Your task to perform on an android device: Search for the best deal on a 3d printer on aliexpress Image 0: 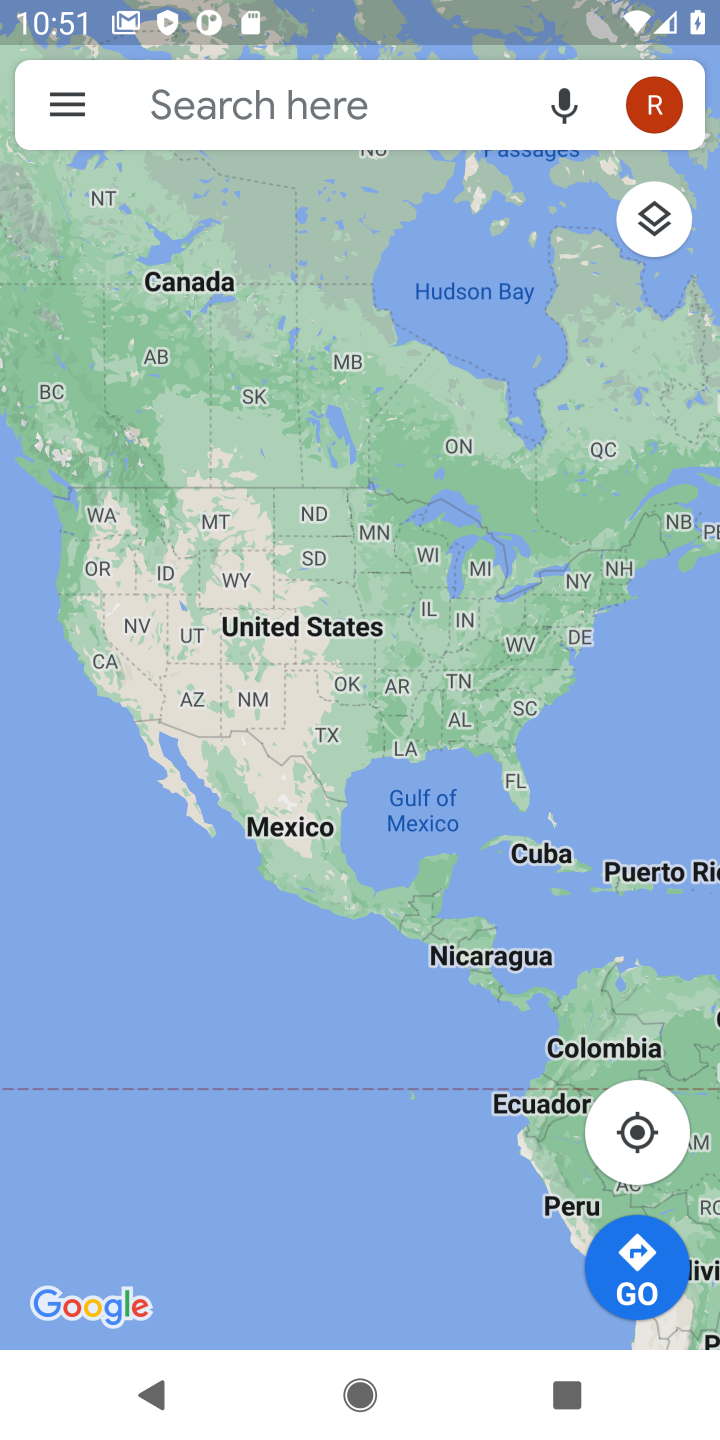
Step 0: press home button
Your task to perform on an android device: Search for the best deal on a 3d printer on aliexpress Image 1: 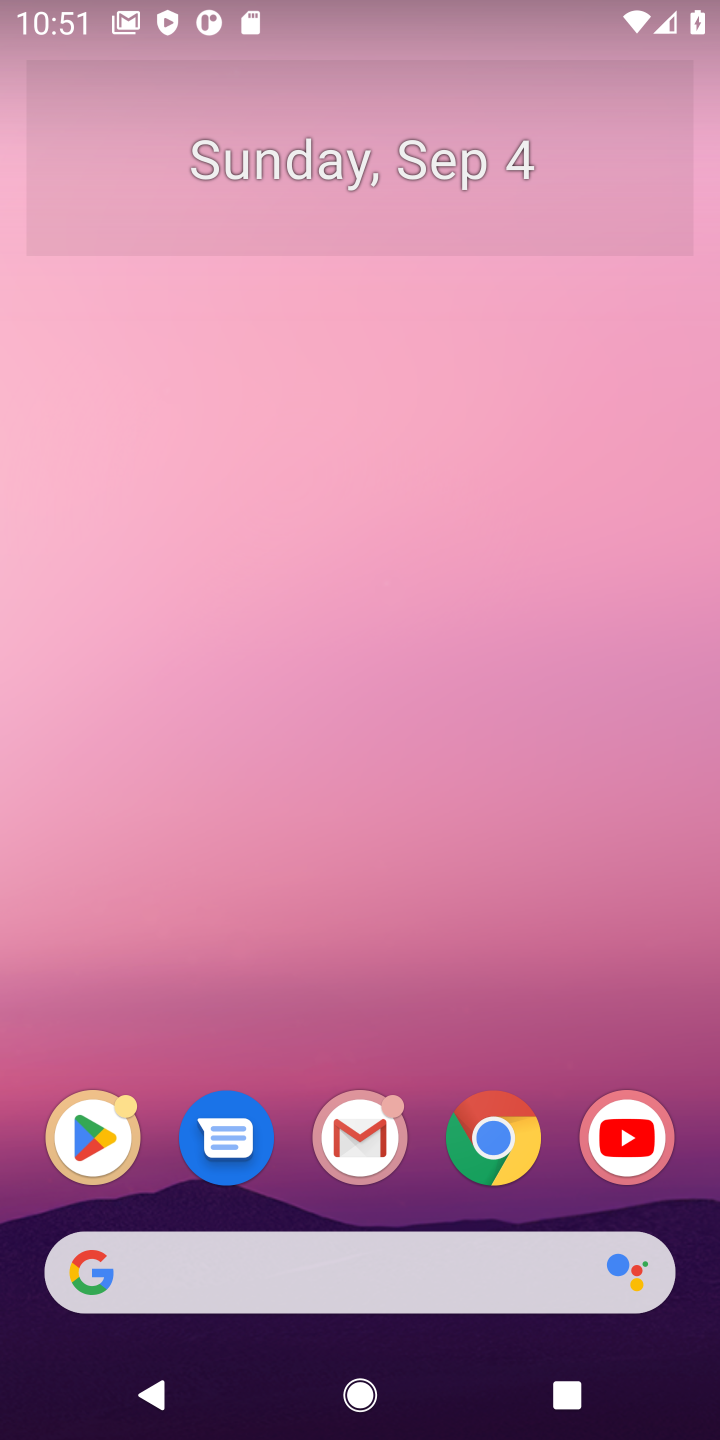
Step 1: click (487, 1159)
Your task to perform on an android device: Search for the best deal on a 3d printer on aliexpress Image 2: 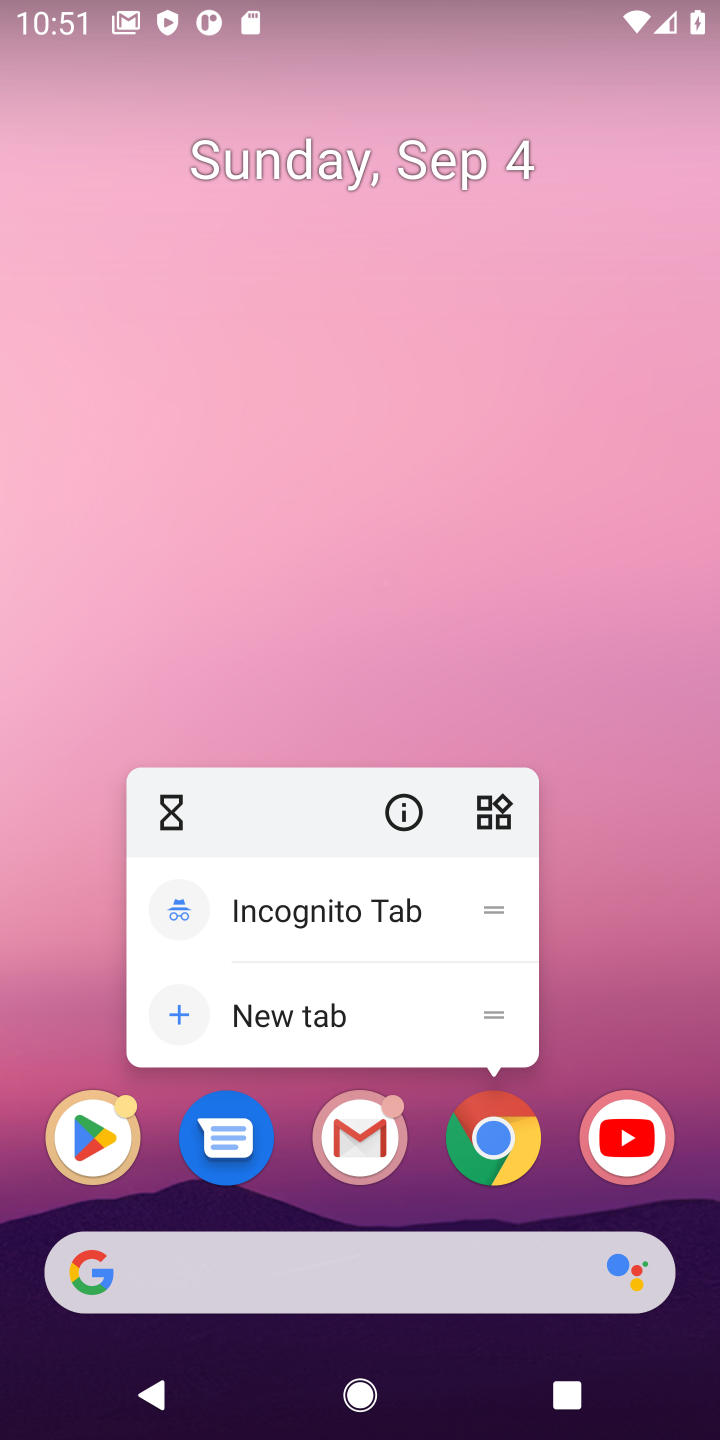
Step 2: click (487, 1159)
Your task to perform on an android device: Search for the best deal on a 3d printer on aliexpress Image 3: 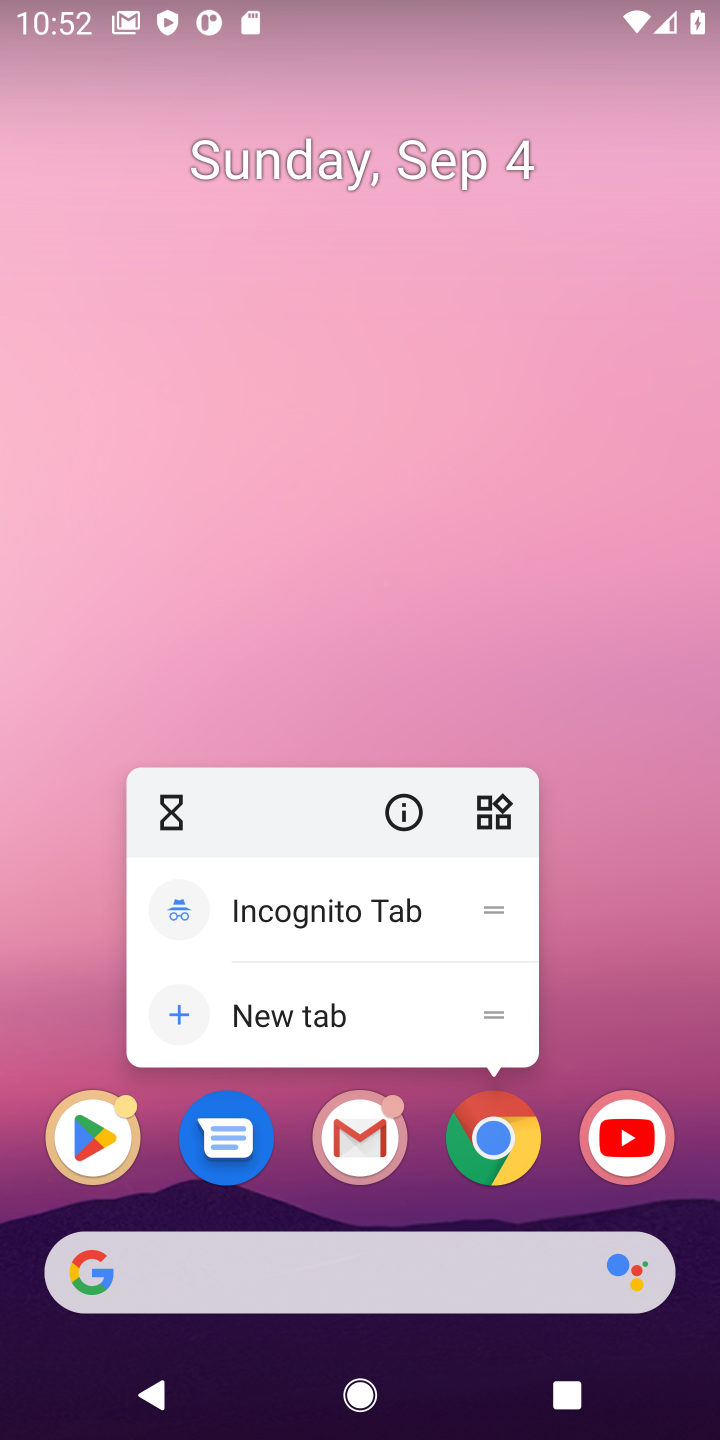
Step 3: click (477, 1188)
Your task to perform on an android device: Search for the best deal on a 3d printer on aliexpress Image 4: 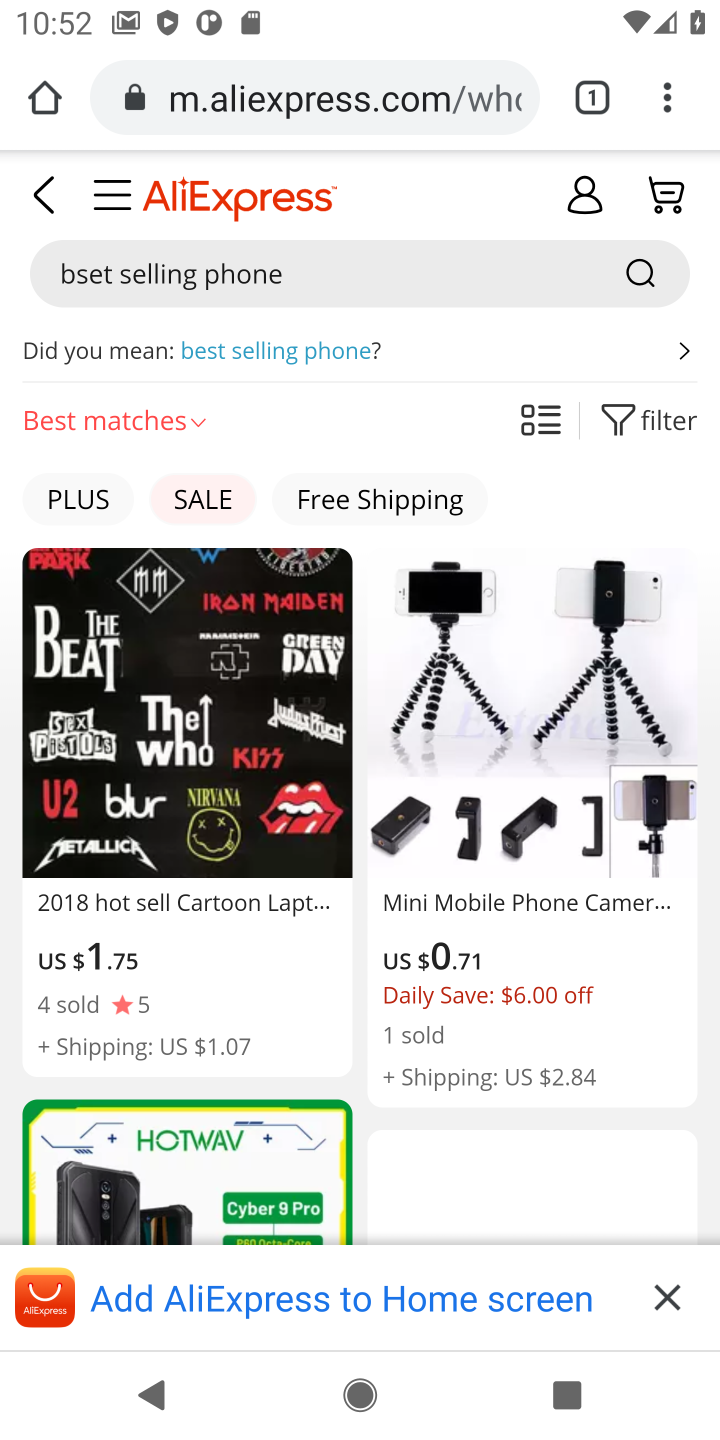
Step 4: click (377, 286)
Your task to perform on an android device: Search for the best deal on a 3d printer on aliexpress Image 5: 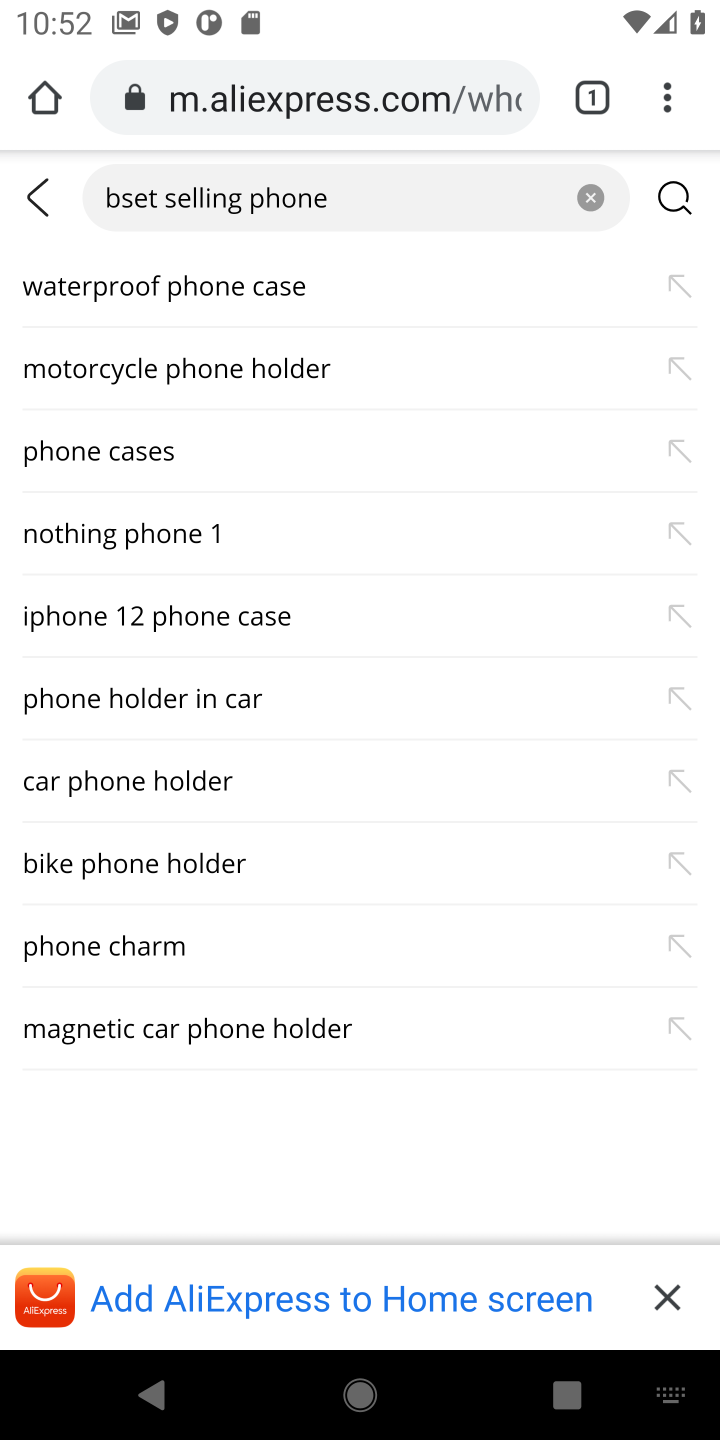
Step 5: click (592, 210)
Your task to perform on an android device: Search for the best deal on a 3d printer on aliexpress Image 6: 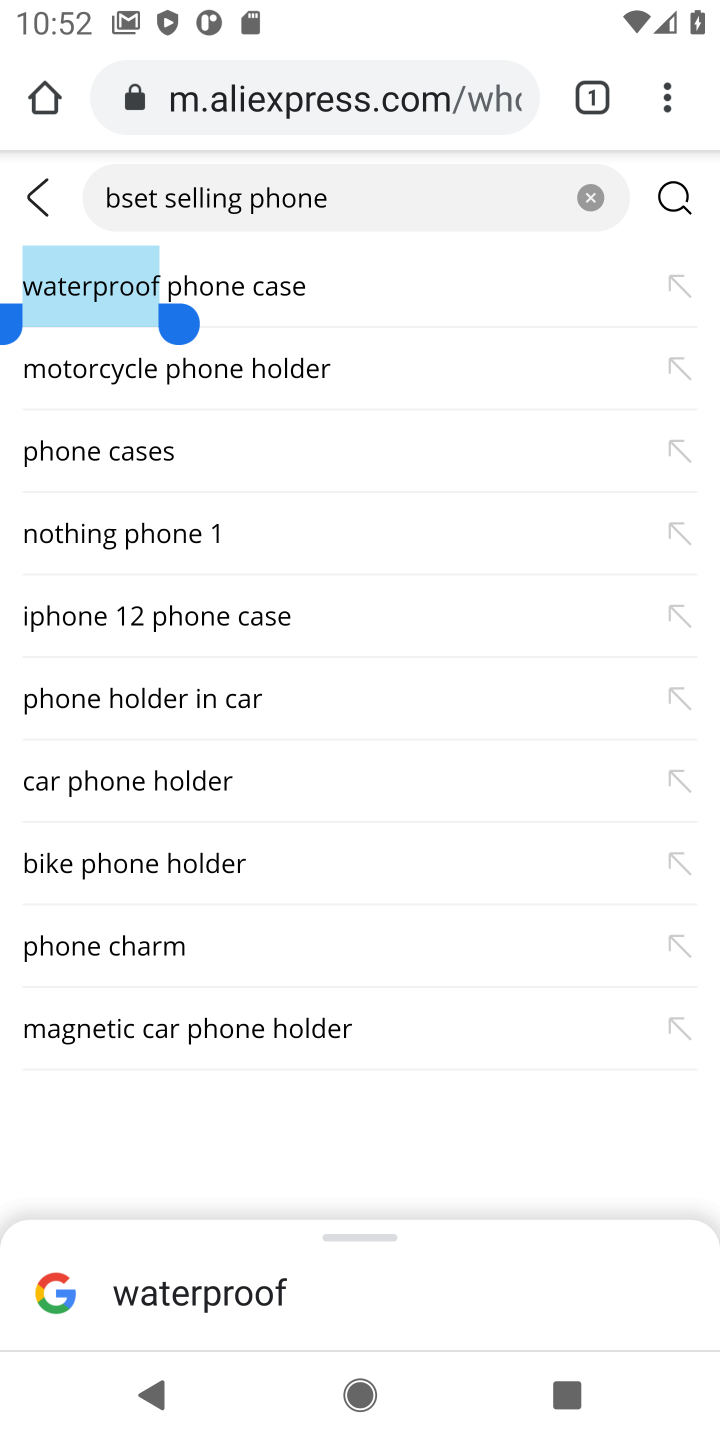
Step 6: click (592, 205)
Your task to perform on an android device: Search for the best deal on a 3d printer on aliexpress Image 7: 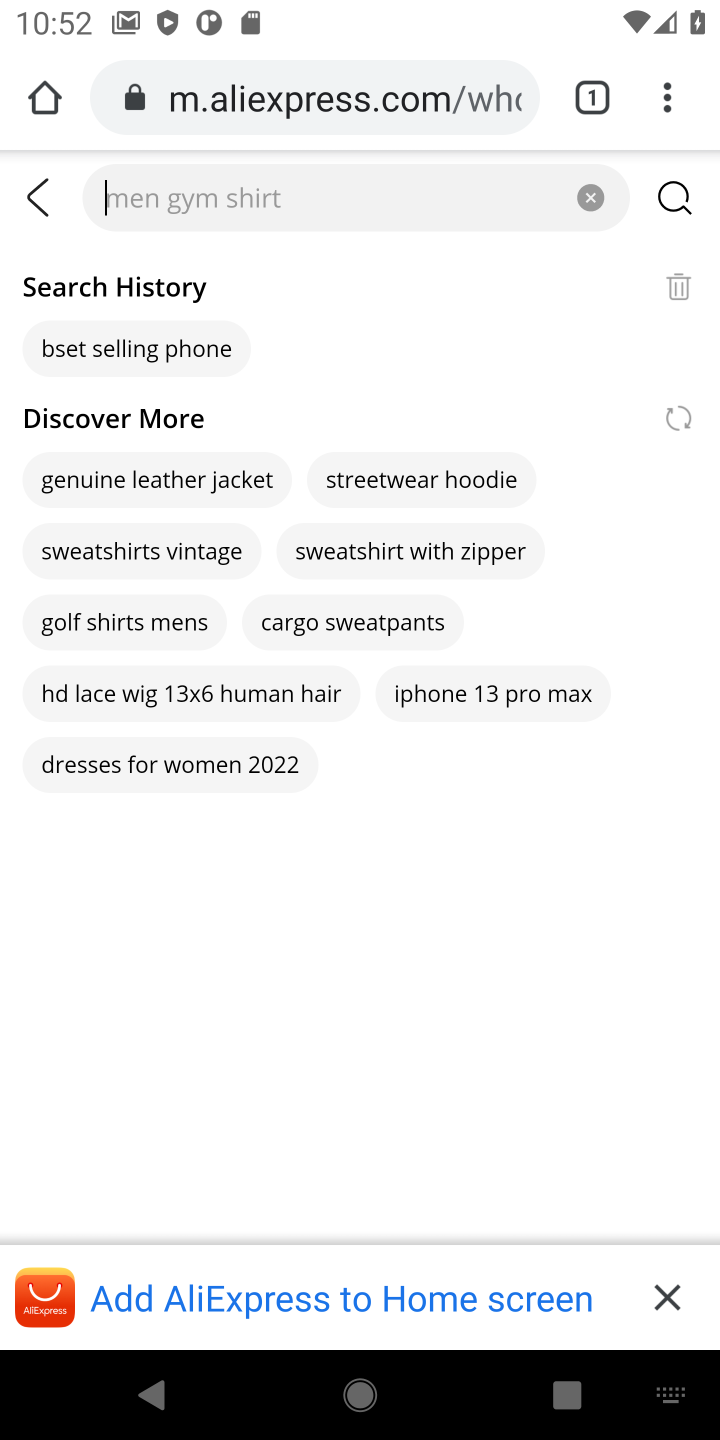
Step 7: type "best deal on a 3d printer"
Your task to perform on an android device: Search for the best deal on a 3d printer on aliexpress Image 8: 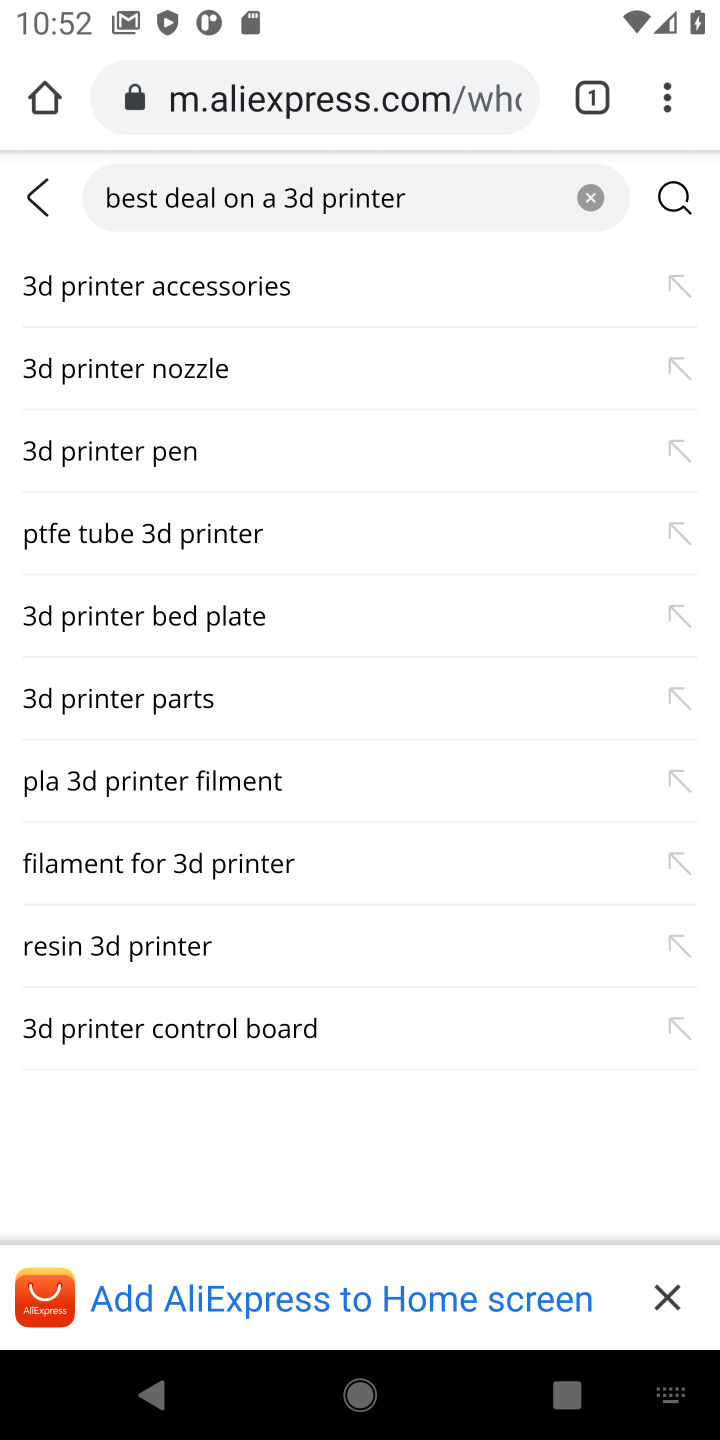
Step 8: press enter
Your task to perform on an android device: Search for the best deal on a 3d printer on aliexpress Image 9: 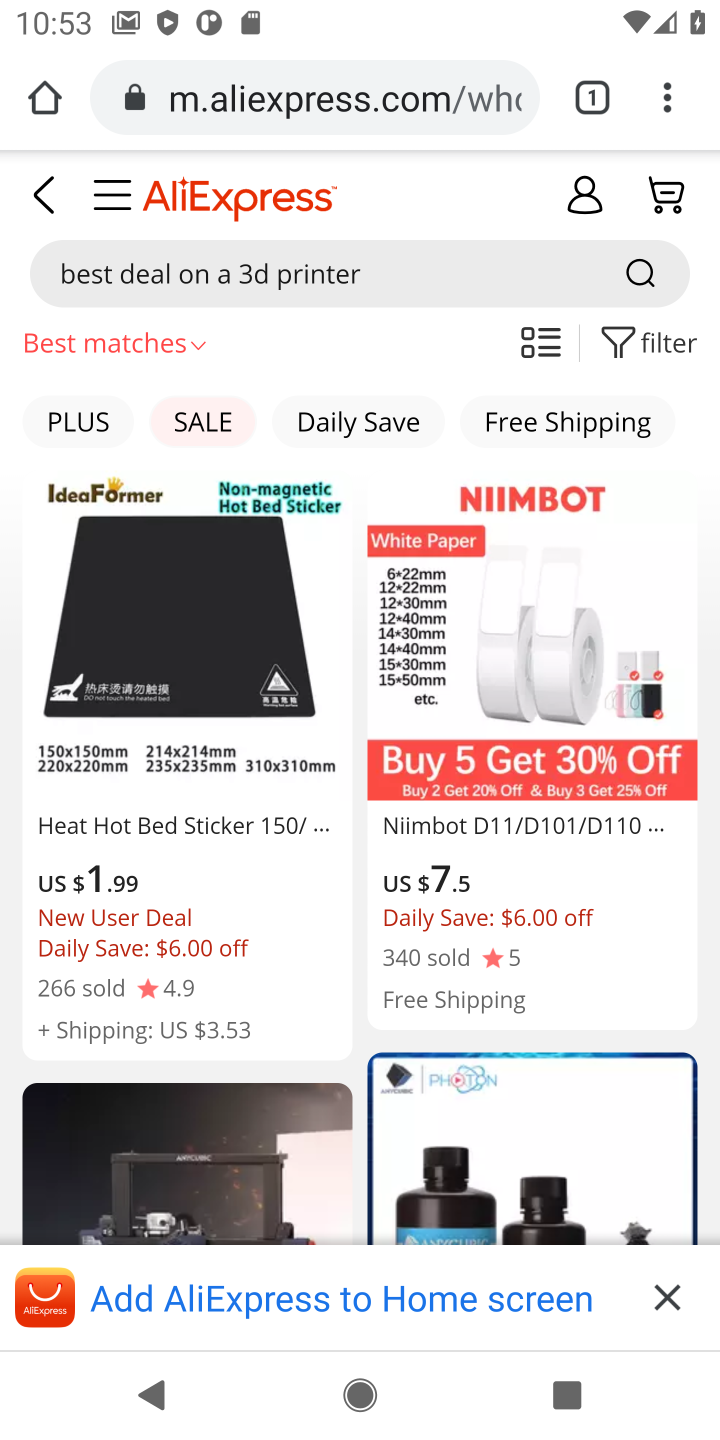
Step 9: task complete